Your task to perform on an android device: Search for Italian restaurants on Maps Image 0: 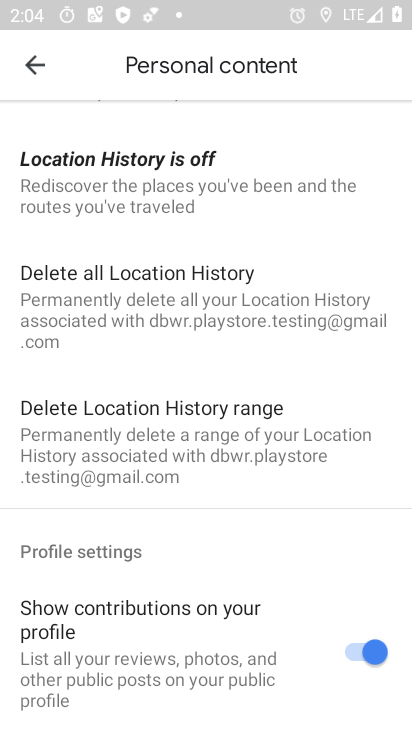
Step 0: press home button
Your task to perform on an android device: Search for Italian restaurants on Maps Image 1: 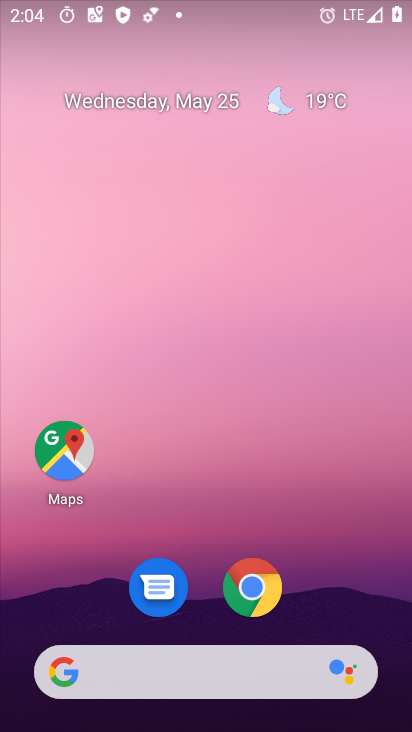
Step 1: drag from (202, 720) to (196, 146)
Your task to perform on an android device: Search for Italian restaurants on Maps Image 2: 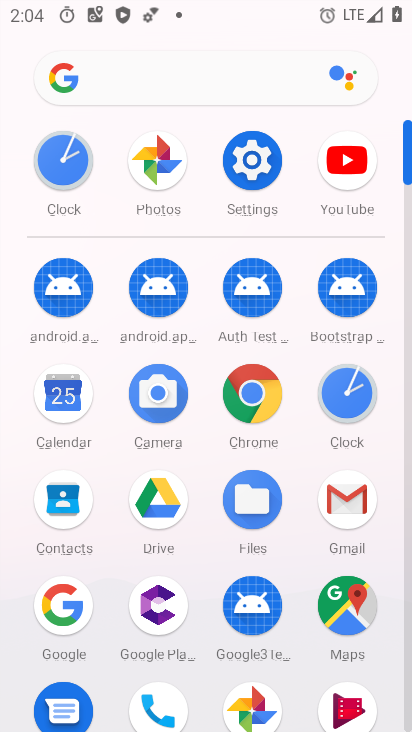
Step 2: click (345, 611)
Your task to perform on an android device: Search for Italian restaurants on Maps Image 3: 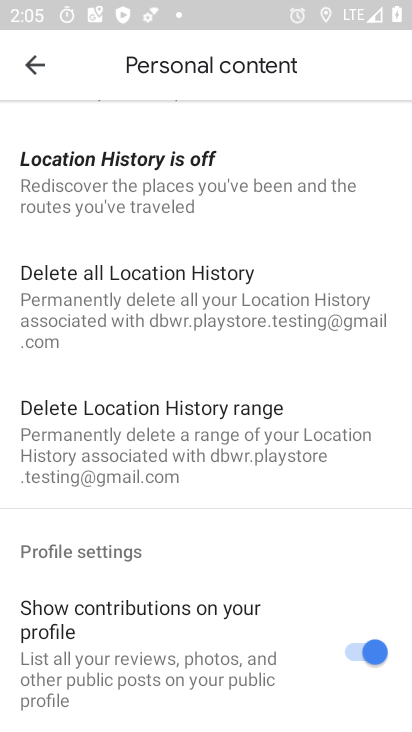
Step 3: click (36, 63)
Your task to perform on an android device: Search for Italian restaurants on Maps Image 4: 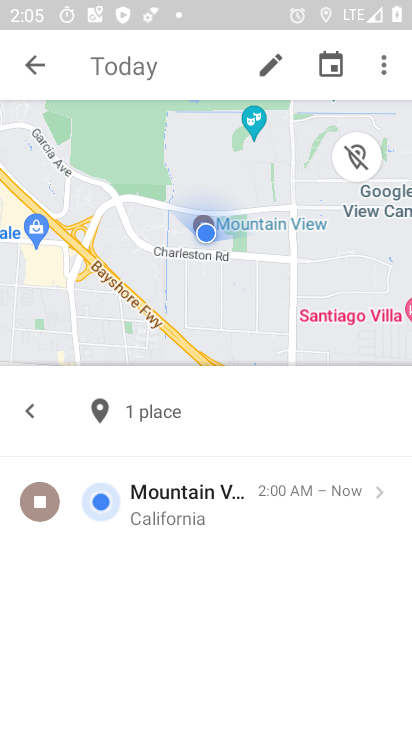
Step 4: click (45, 67)
Your task to perform on an android device: Search for Italian restaurants on Maps Image 5: 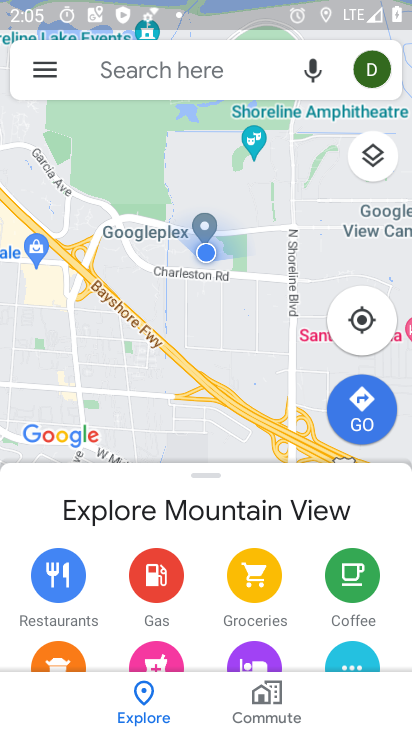
Step 5: click (179, 73)
Your task to perform on an android device: Search for Italian restaurants on Maps Image 6: 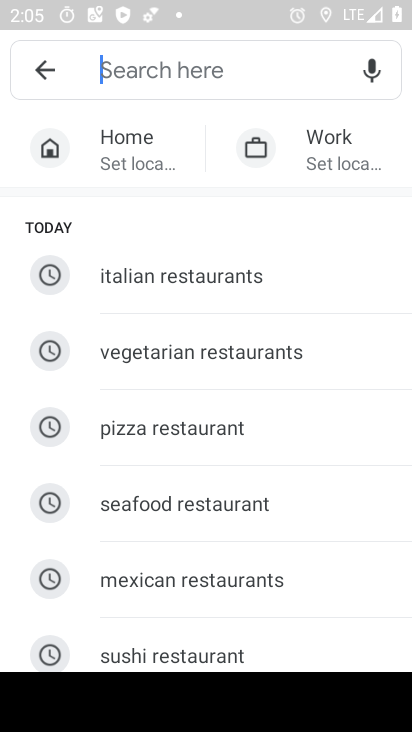
Step 6: type "italian restaurants"
Your task to perform on an android device: Search for Italian restaurants on Maps Image 7: 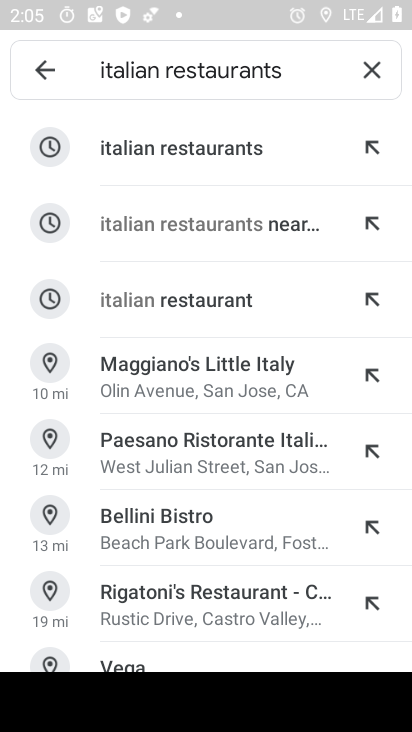
Step 7: click (201, 140)
Your task to perform on an android device: Search for Italian restaurants on Maps Image 8: 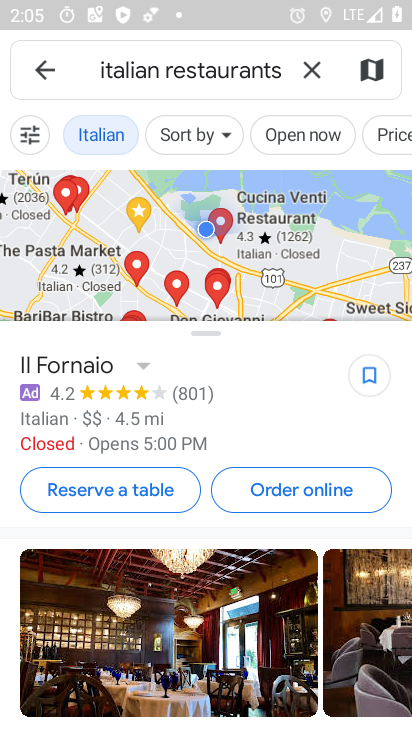
Step 8: task complete